Your task to perform on an android device: Open the calendar and show me this week's events? Image 0: 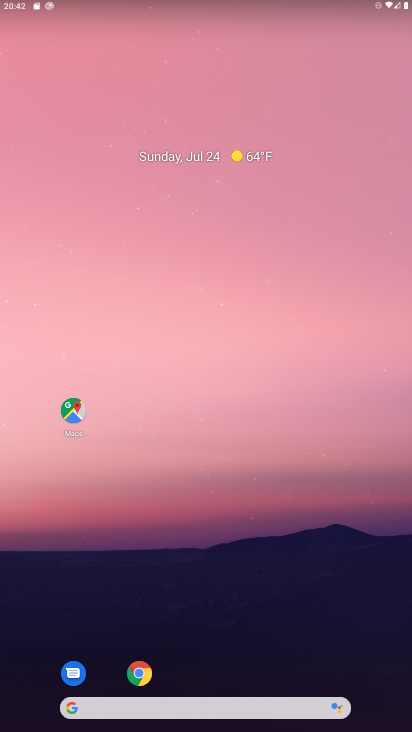
Step 0: drag from (274, 616) to (276, 206)
Your task to perform on an android device: Open the calendar and show me this week's events? Image 1: 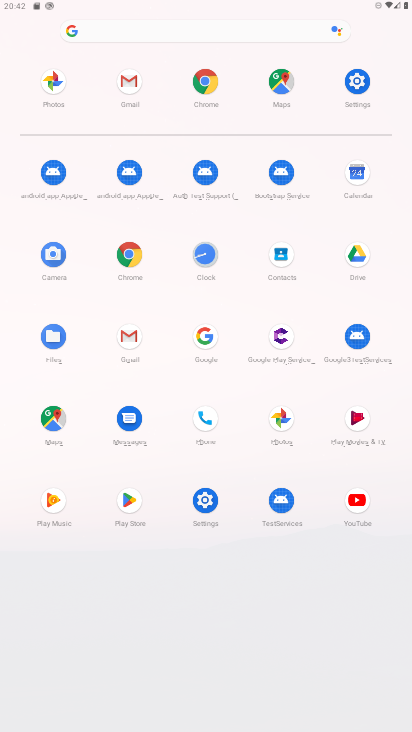
Step 1: click (361, 170)
Your task to perform on an android device: Open the calendar and show me this week's events? Image 2: 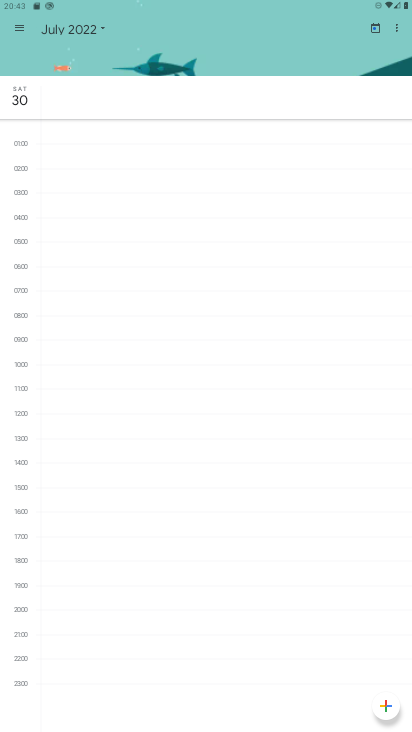
Step 2: click (12, 23)
Your task to perform on an android device: Open the calendar and show me this week's events? Image 3: 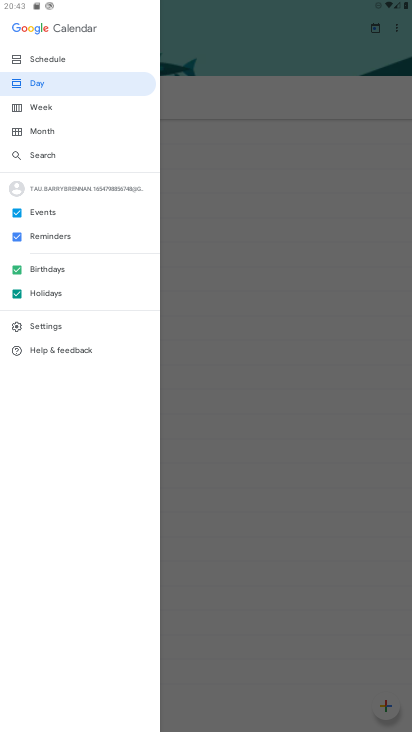
Step 3: click (47, 108)
Your task to perform on an android device: Open the calendar and show me this week's events? Image 4: 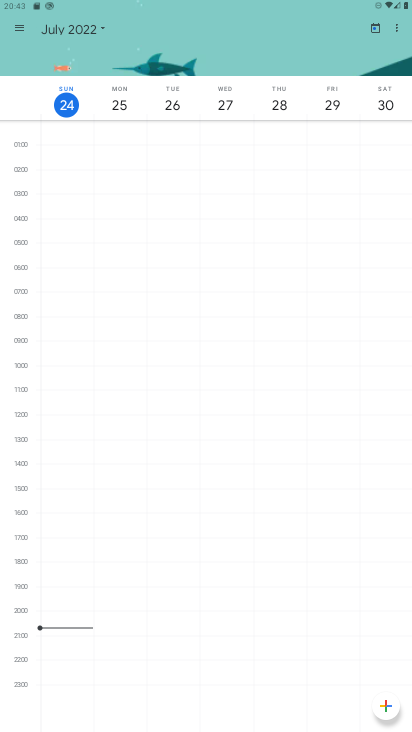
Step 4: task complete